Your task to perform on an android device: star an email in the gmail app Image 0: 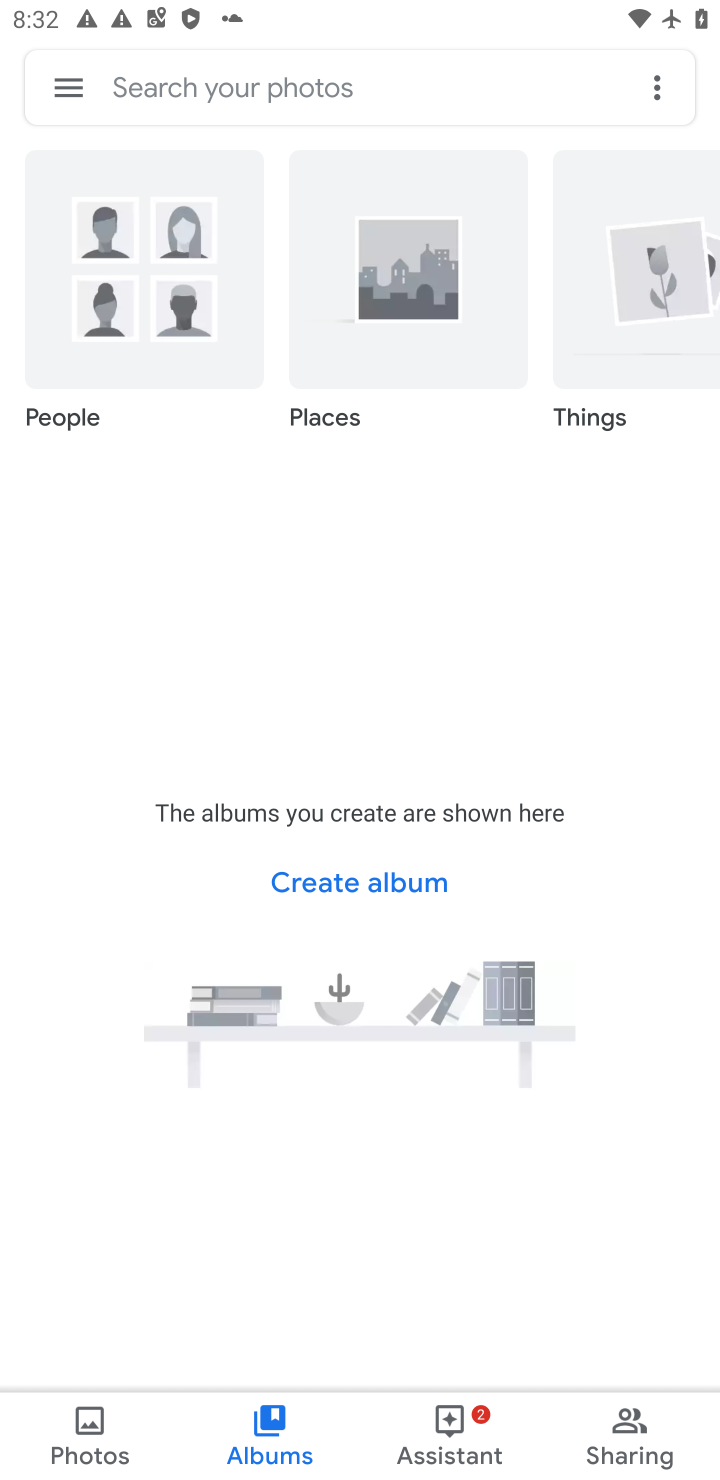
Step 0: press home button
Your task to perform on an android device: star an email in the gmail app Image 1: 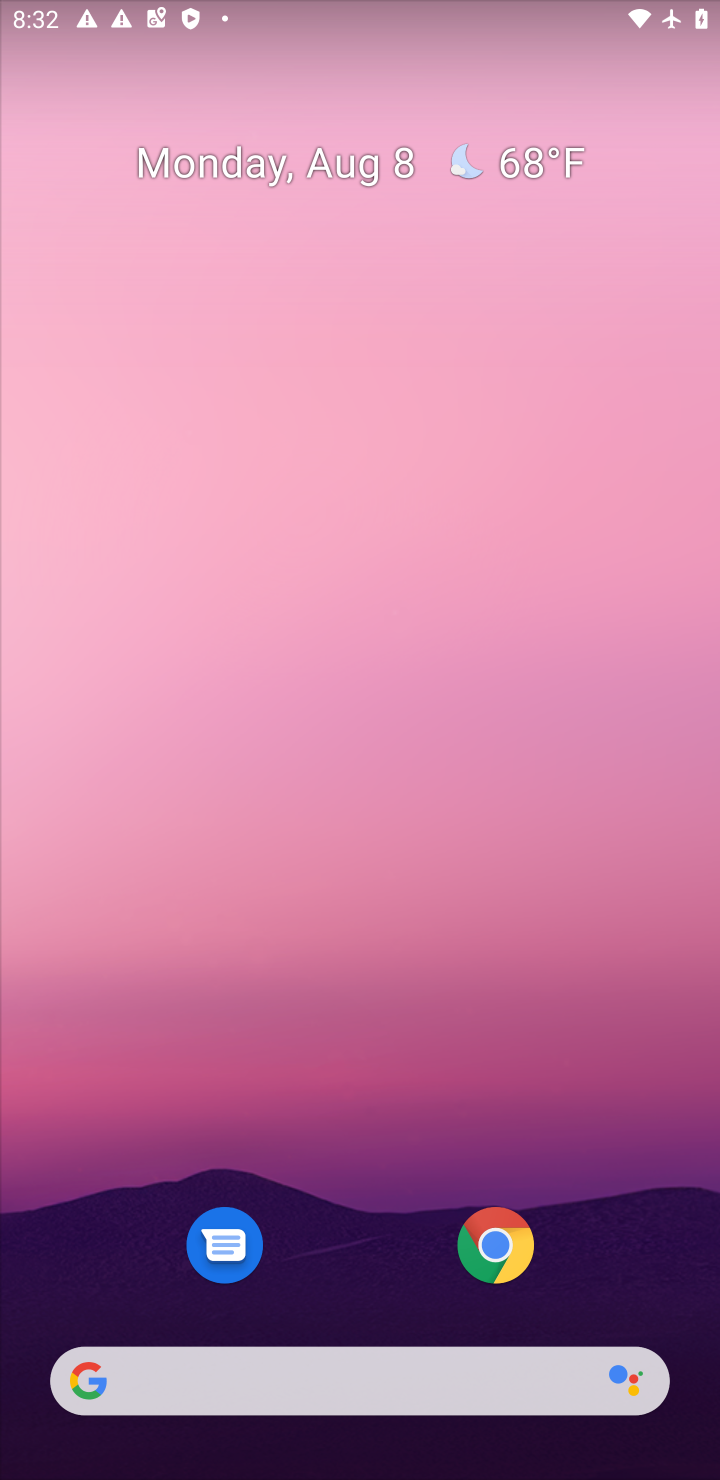
Step 1: drag from (380, 950) to (312, 9)
Your task to perform on an android device: star an email in the gmail app Image 2: 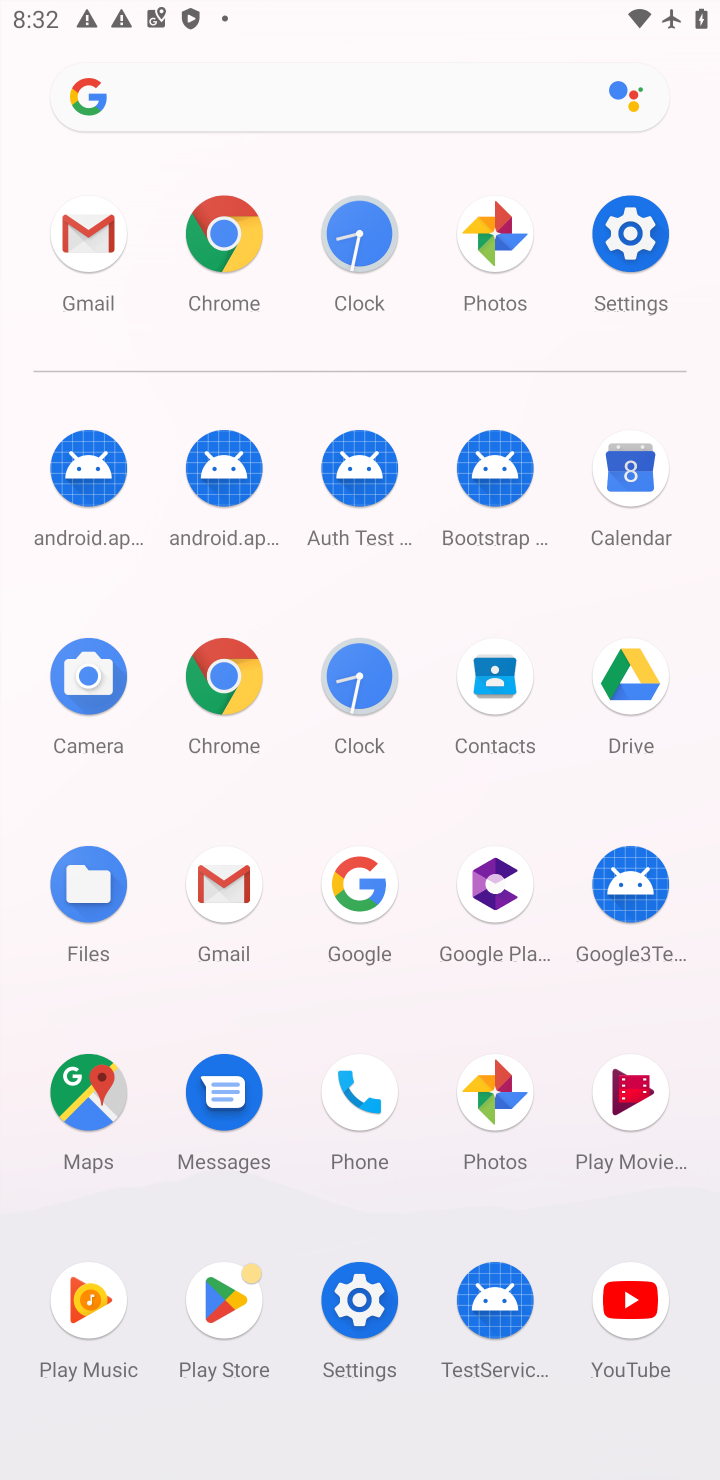
Step 2: click (236, 894)
Your task to perform on an android device: star an email in the gmail app Image 3: 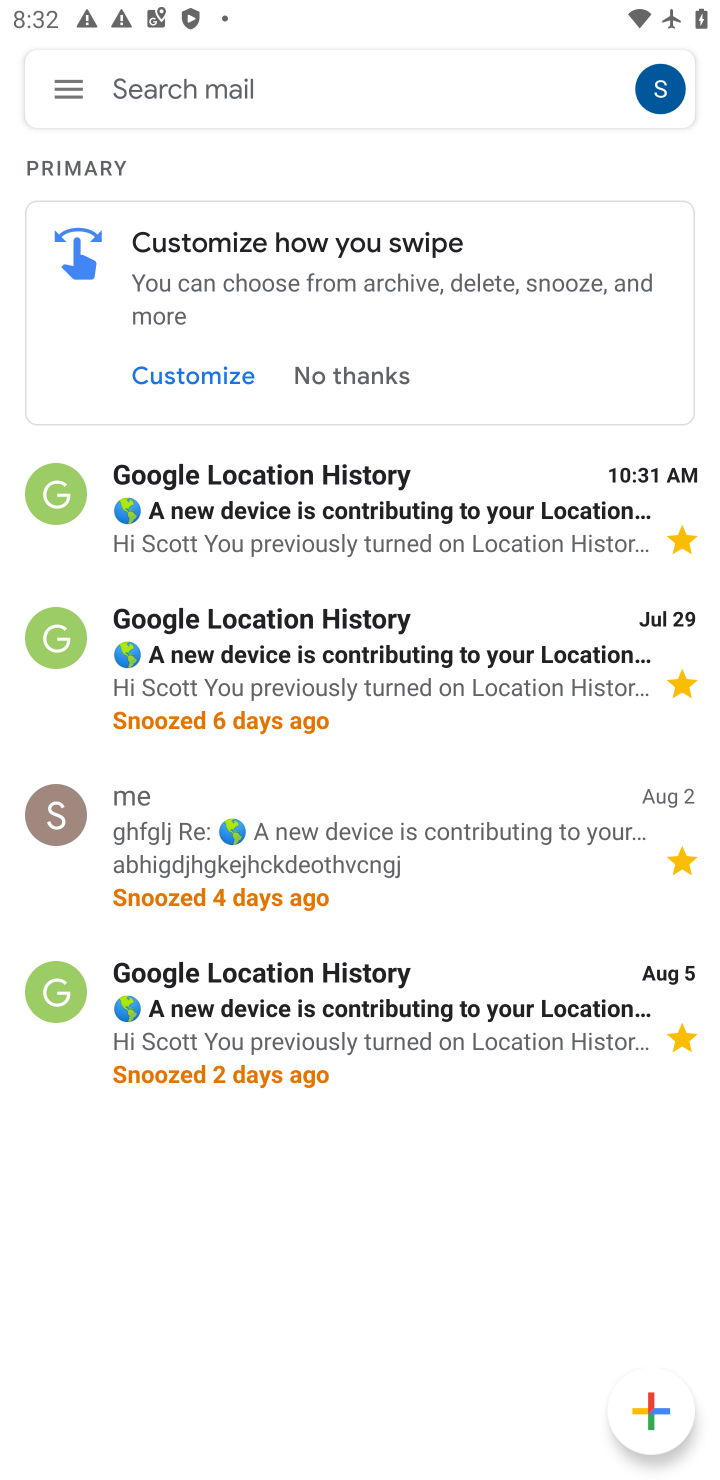
Step 3: task complete